Your task to perform on an android device: Find coffee shops on Maps Image 0: 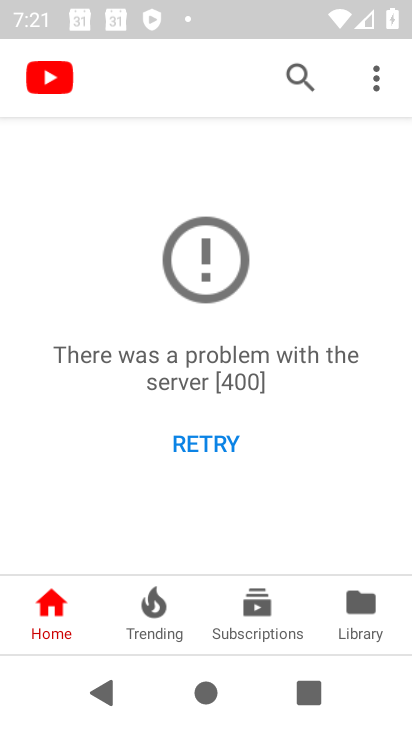
Step 0: press home button
Your task to perform on an android device: Find coffee shops on Maps Image 1: 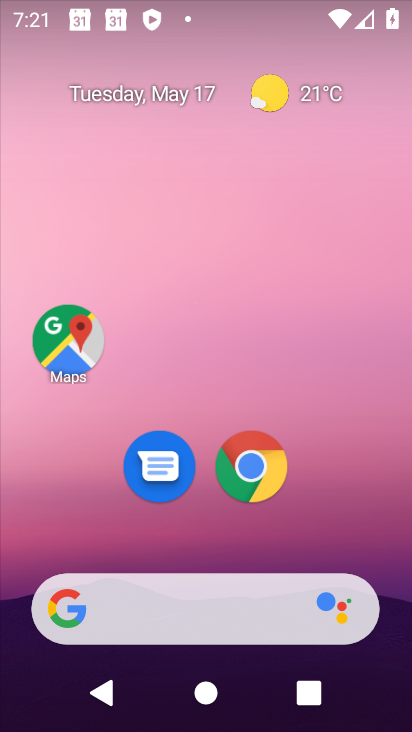
Step 1: click (88, 337)
Your task to perform on an android device: Find coffee shops on Maps Image 2: 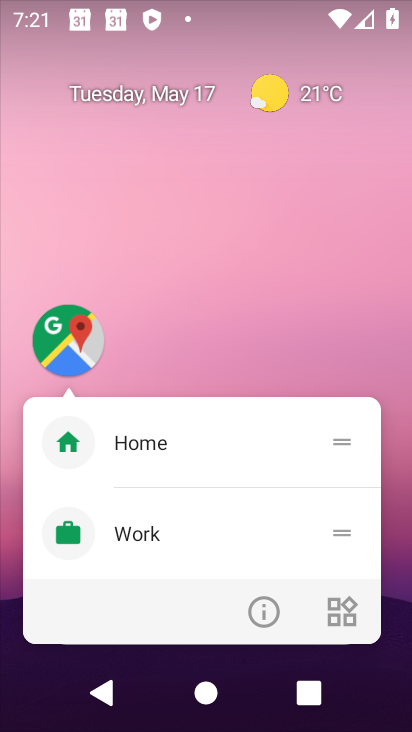
Step 2: click (83, 338)
Your task to perform on an android device: Find coffee shops on Maps Image 3: 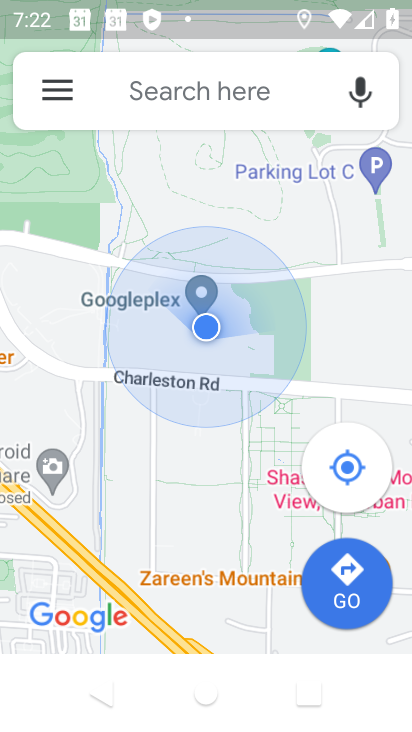
Step 3: click (240, 100)
Your task to perform on an android device: Find coffee shops on Maps Image 4: 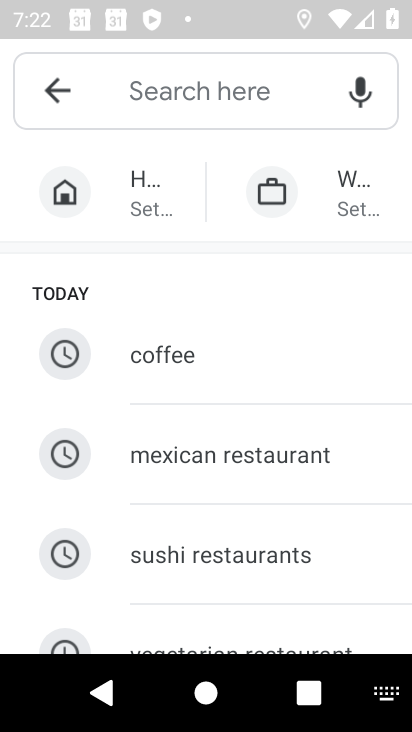
Step 4: click (178, 348)
Your task to perform on an android device: Find coffee shops on Maps Image 5: 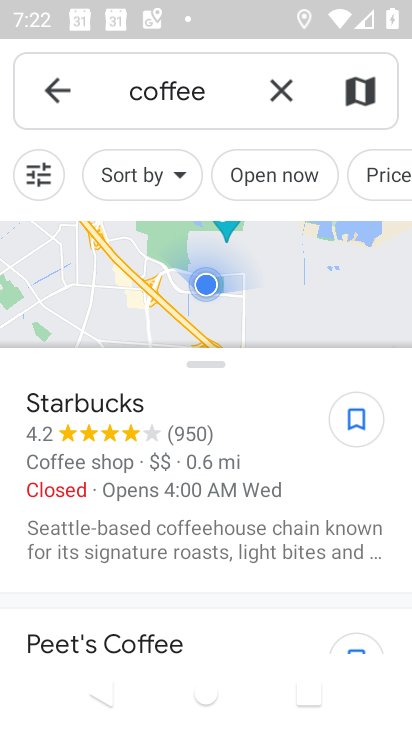
Step 5: task complete